Your task to perform on an android device: open chrome privacy settings Image 0: 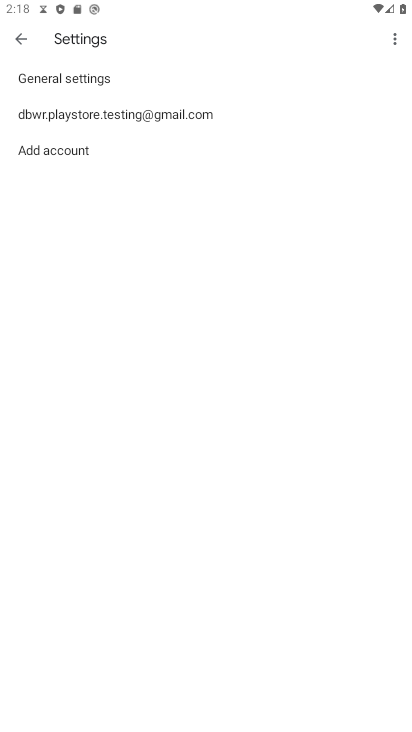
Step 0: press home button
Your task to perform on an android device: open chrome privacy settings Image 1: 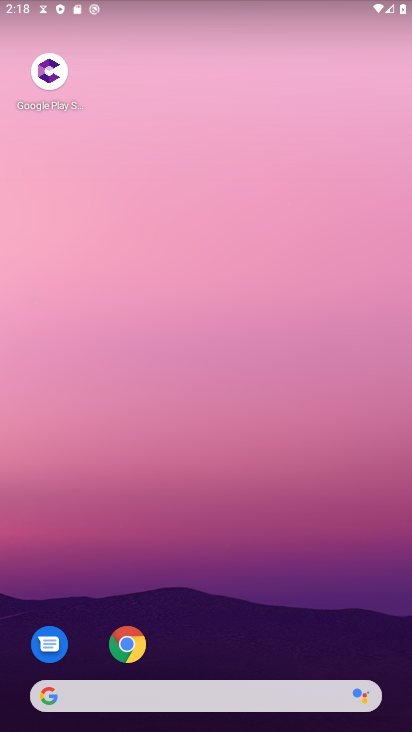
Step 1: click (127, 640)
Your task to perform on an android device: open chrome privacy settings Image 2: 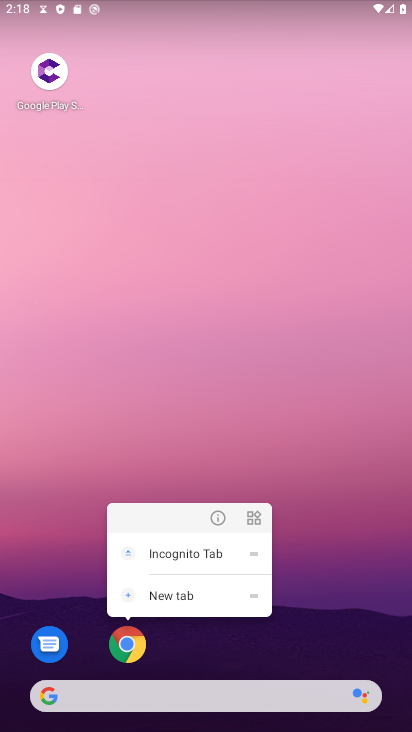
Step 2: click (127, 638)
Your task to perform on an android device: open chrome privacy settings Image 3: 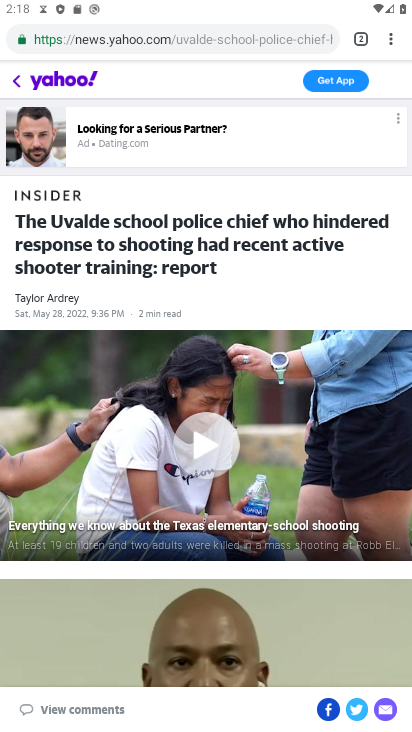
Step 3: drag from (391, 40) to (269, 475)
Your task to perform on an android device: open chrome privacy settings Image 4: 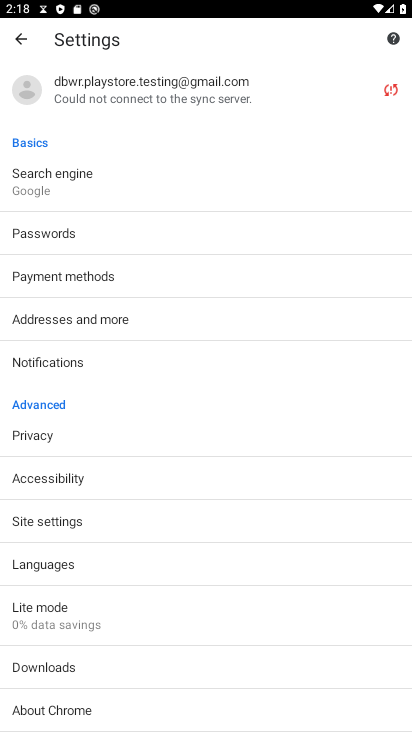
Step 4: click (37, 436)
Your task to perform on an android device: open chrome privacy settings Image 5: 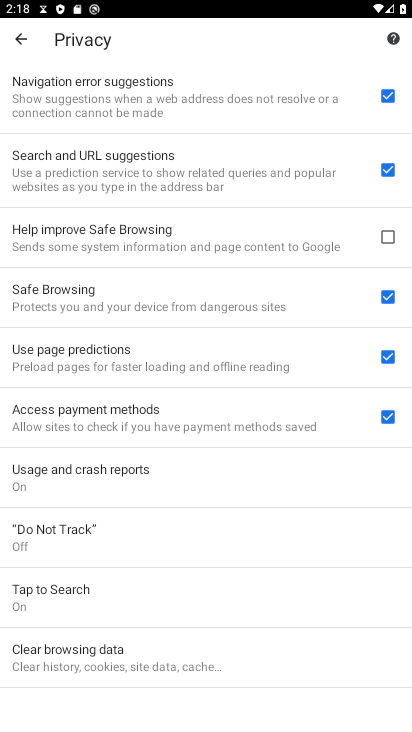
Step 5: task complete